Your task to perform on an android device: refresh tabs in the chrome app Image 0: 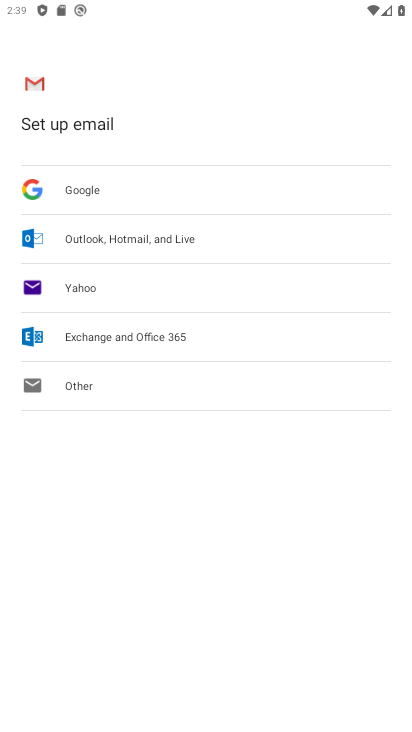
Step 0: press back button
Your task to perform on an android device: refresh tabs in the chrome app Image 1: 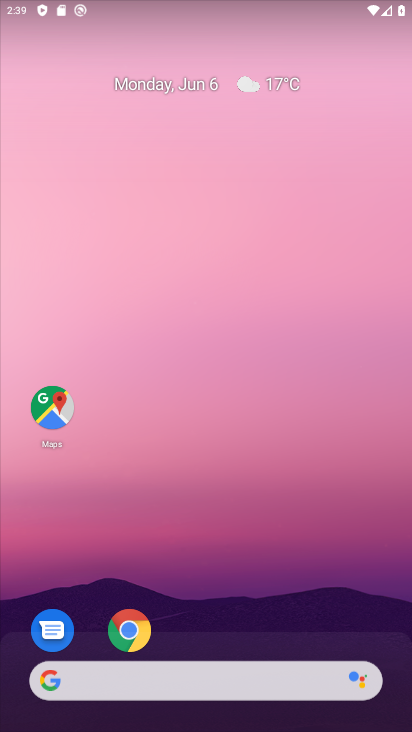
Step 1: click (133, 614)
Your task to perform on an android device: refresh tabs in the chrome app Image 2: 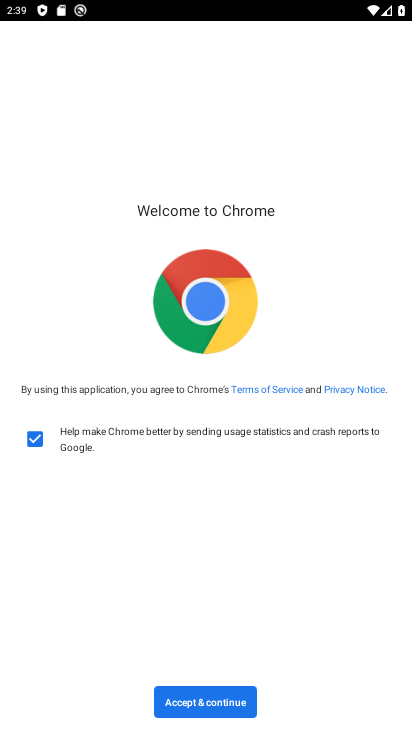
Step 2: click (222, 702)
Your task to perform on an android device: refresh tabs in the chrome app Image 3: 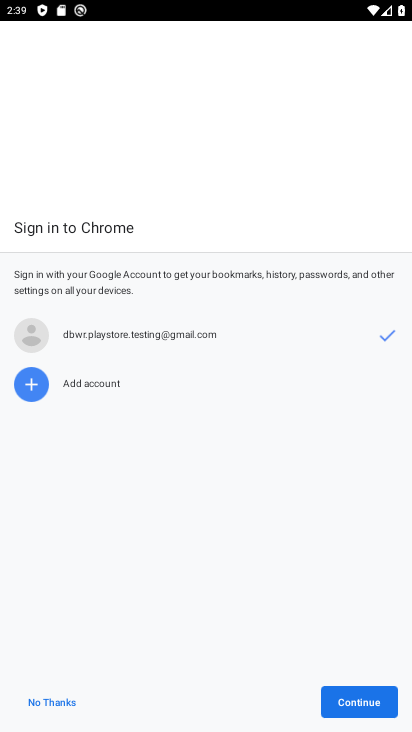
Step 3: click (369, 694)
Your task to perform on an android device: refresh tabs in the chrome app Image 4: 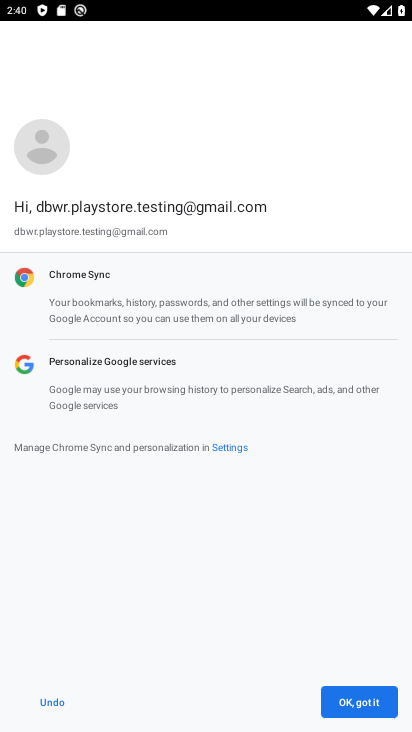
Step 4: click (346, 701)
Your task to perform on an android device: refresh tabs in the chrome app Image 5: 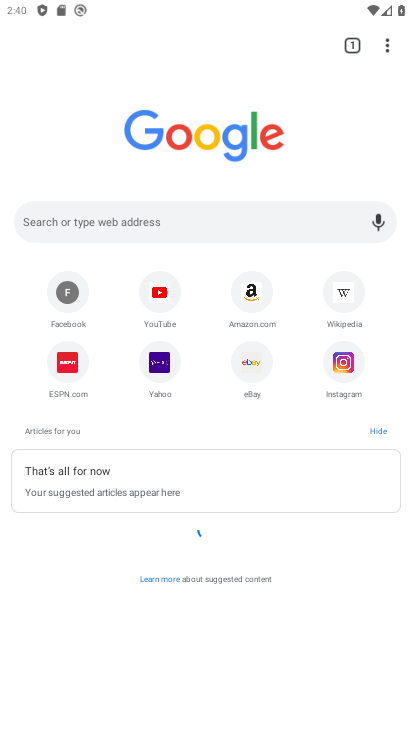
Step 5: click (386, 44)
Your task to perform on an android device: refresh tabs in the chrome app Image 6: 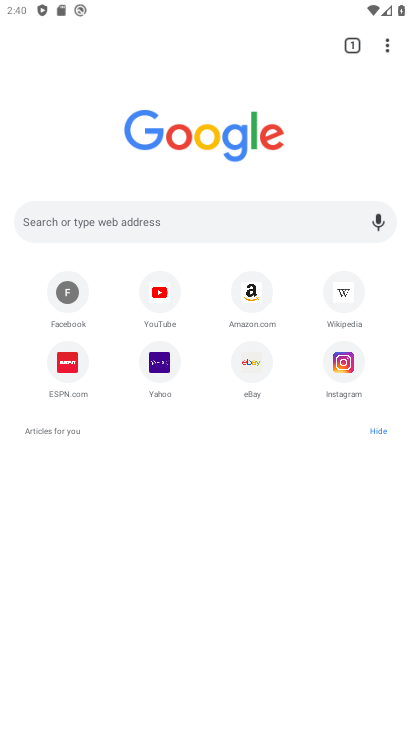
Step 6: task complete